Your task to perform on an android device: Open the calendar and show me this week's events Image 0: 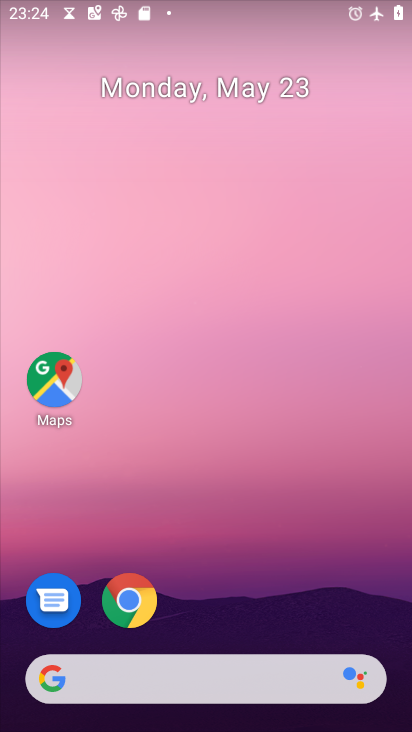
Step 0: drag from (221, 724) to (183, 161)
Your task to perform on an android device: Open the calendar and show me this week's events Image 1: 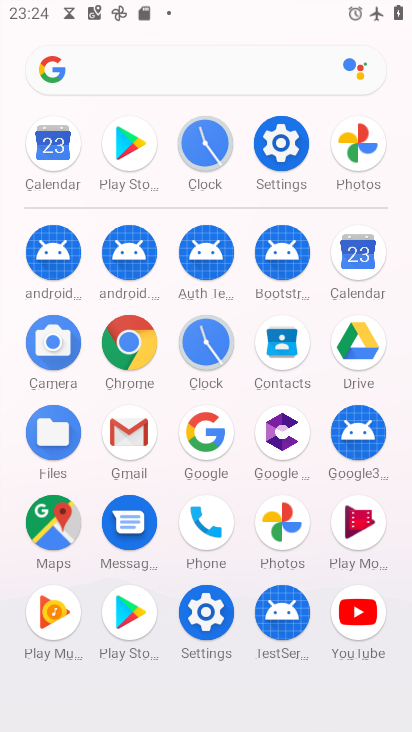
Step 1: click (357, 261)
Your task to perform on an android device: Open the calendar and show me this week's events Image 2: 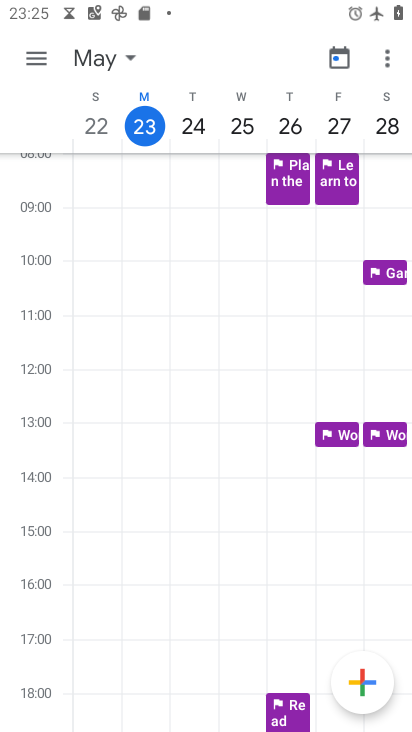
Step 2: click (129, 60)
Your task to perform on an android device: Open the calendar and show me this week's events Image 3: 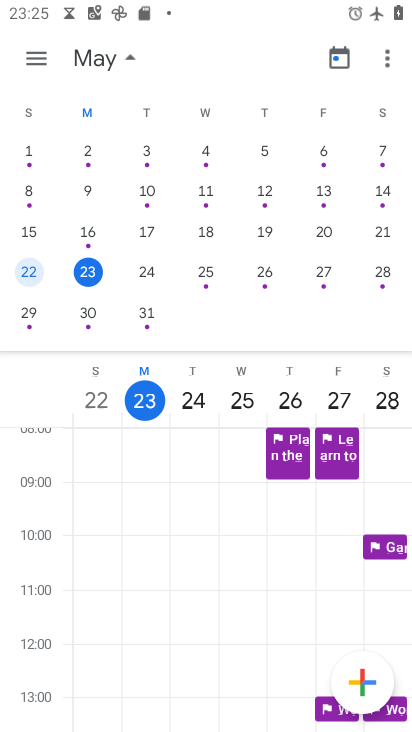
Step 3: click (142, 387)
Your task to perform on an android device: Open the calendar and show me this week's events Image 4: 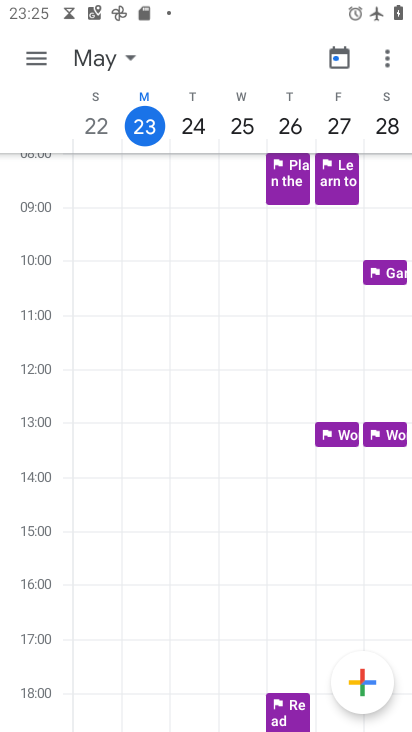
Step 4: task complete